Your task to perform on an android device: Go to Amazon Image 0: 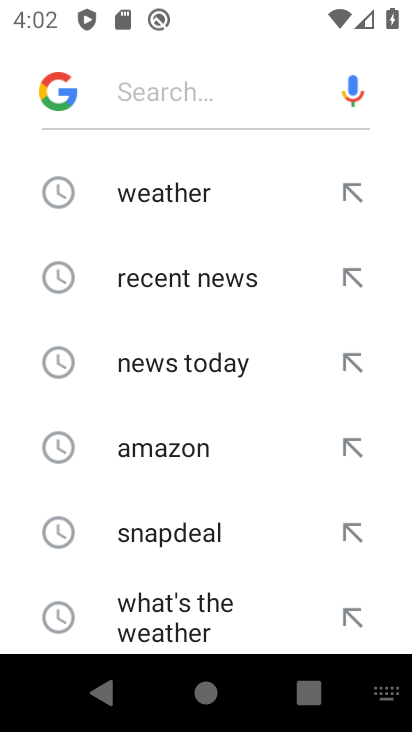
Step 0: press home button
Your task to perform on an android device: Go to Amazon Image 1: 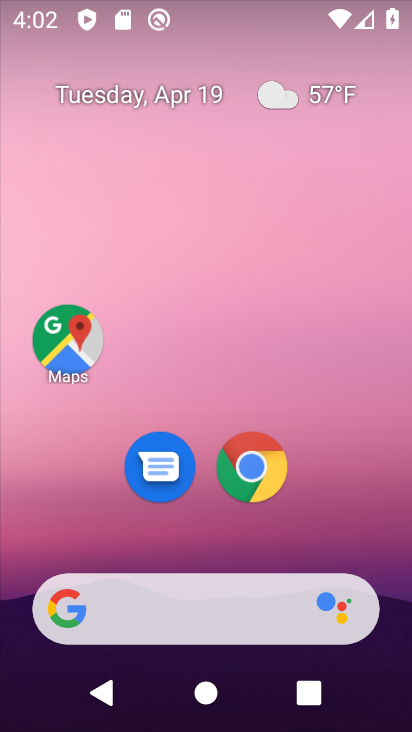
Step 1: click (270, 481)
Your task to perform on an android device: Go to Amazon Image 2: 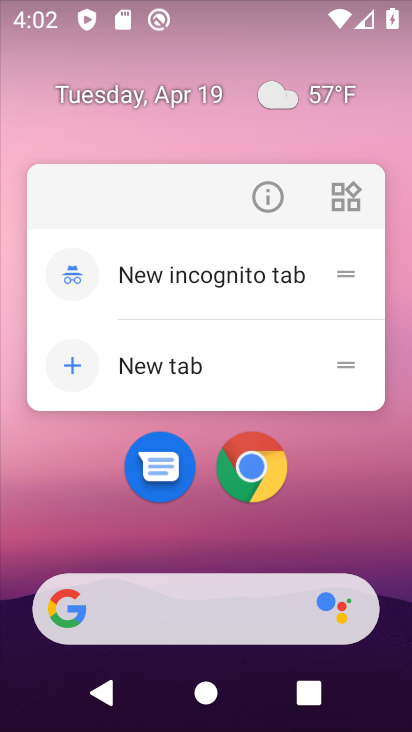
Step 2: click (263, 477)
Your task to perform on an android device: Go to Amazon Image 3: 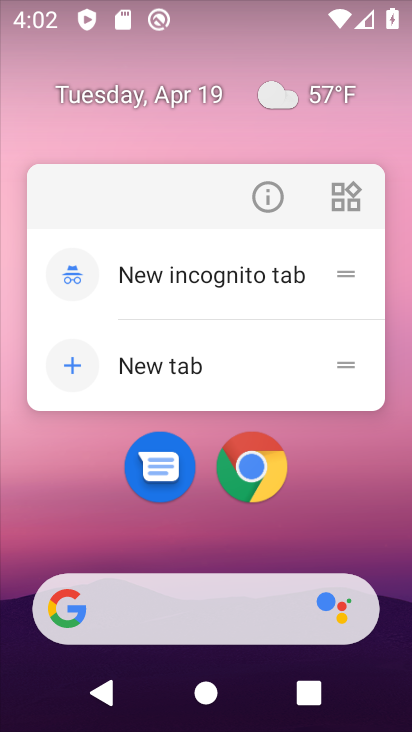
Step 3: click (248, 458)
Your task to perform on an android device: Go to Amazon Image 4: 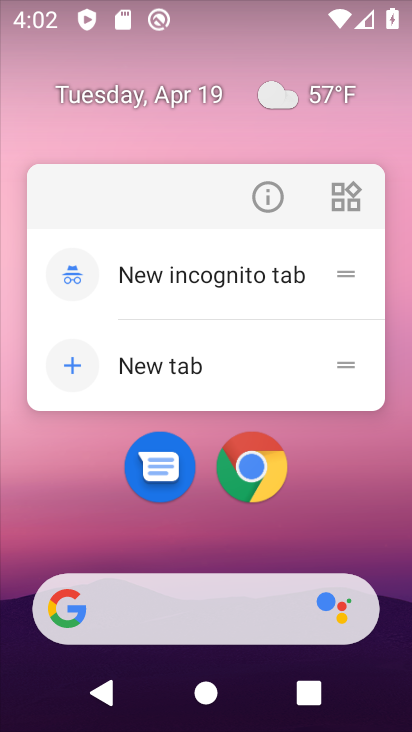
Step 4: click (244, 491)
Your task to perform on an android device: Go to Amazon Image 5: 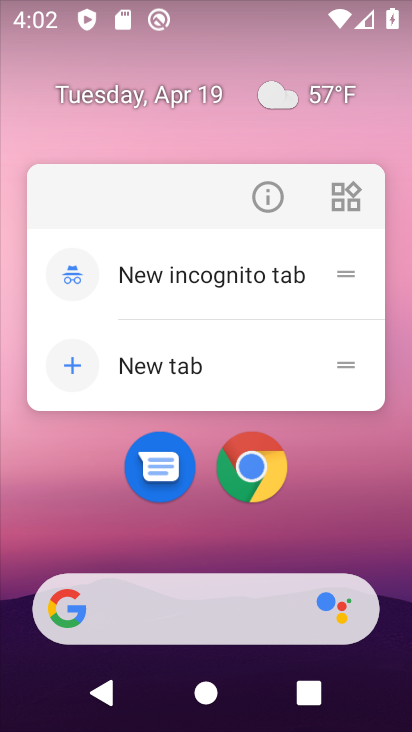
Step 5: click (276, 470)
Your task to perform on an android device: Go to Amazon Image 6: 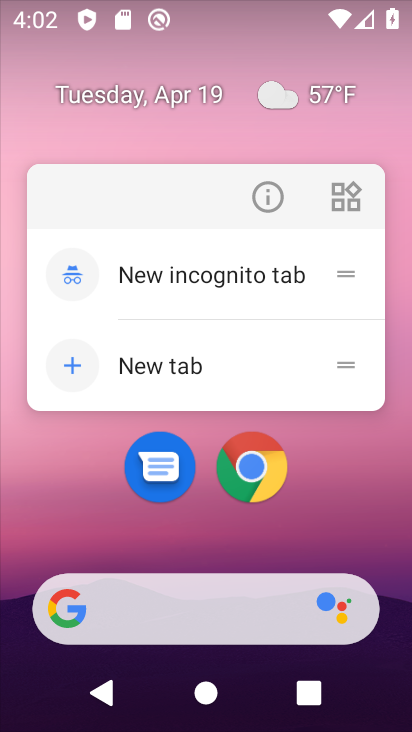
Step 6: click (275, 472)
Your task to perform on an android device: Go to Amazon Image 7: 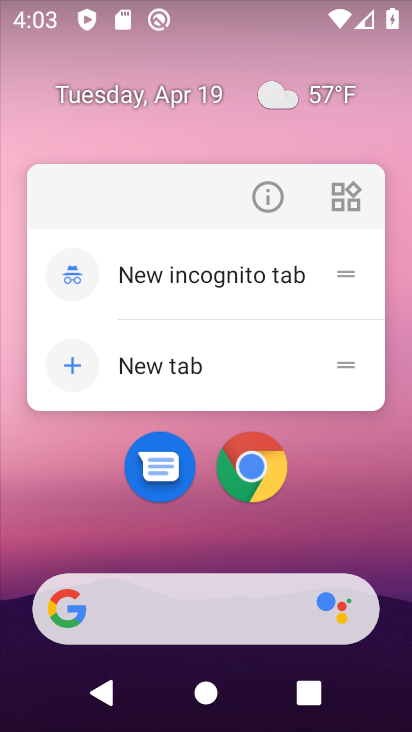
Step 7: click (270, 472)
Your task to perform on an android device: Go to Amazon Image 8: 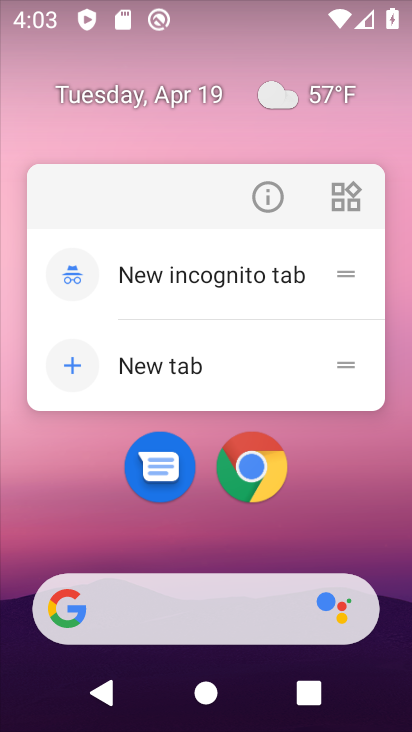
Step 8: task complete